Your task to perform on an android device: turn off data saver in the chrome app Image 0: 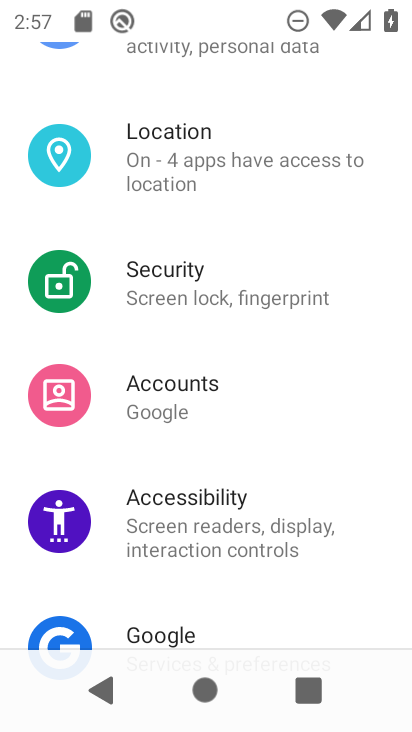
Step 0: press home button
Your task to perform on an android device: turn off data saver in the chrome app Image 1: 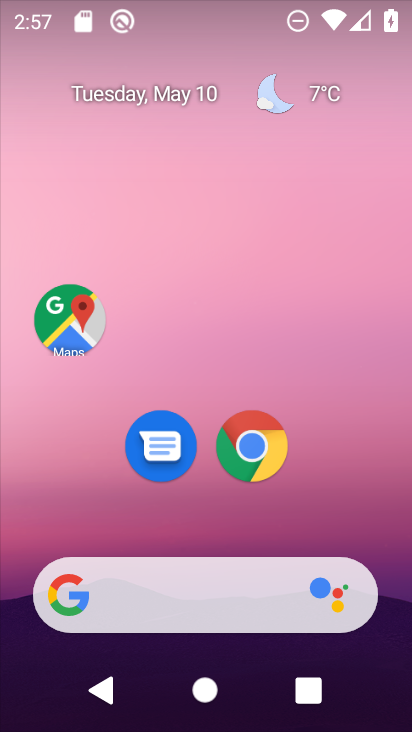
Step 1: click (254, 443)
Your task to perform on an android device: turn off data saver in the chrome app Image 2: 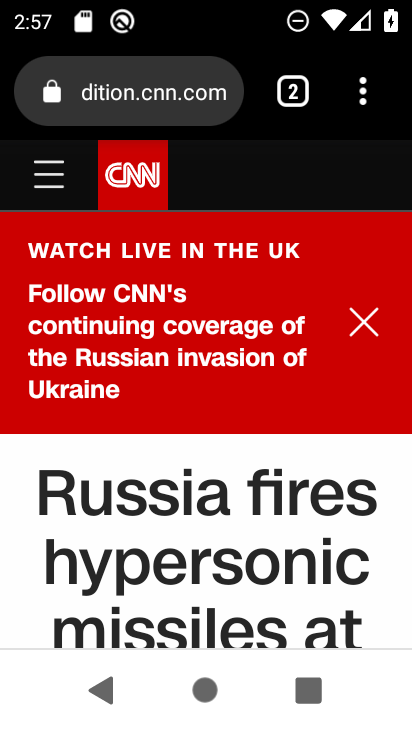
Step 2: click (360, 93)
Your task to perform on an android device: turn off data saver in the chrome app Image 3: 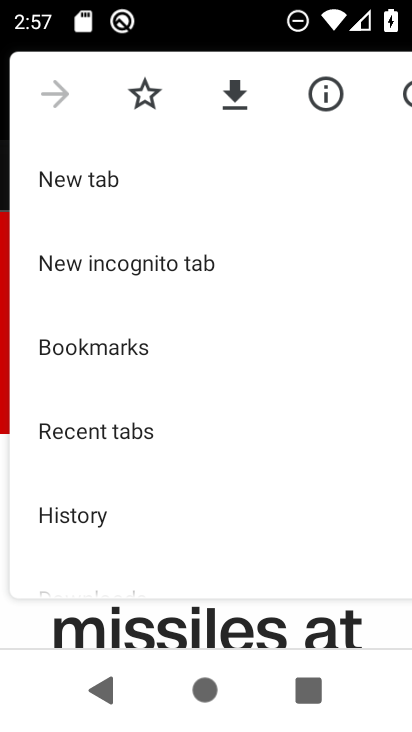
Step 3: drag from (172, 511) to (147, 259)
Your task to perform on an android device: turn off data saver in the chrome app Image 4: 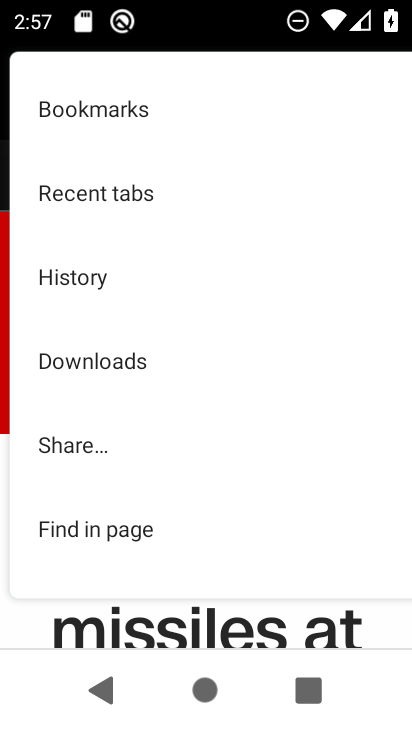
Step 4: drag from (182, 447) to (165, 179)
Your task to perform on an android device: turn off data saver in the chrome app Image 5: 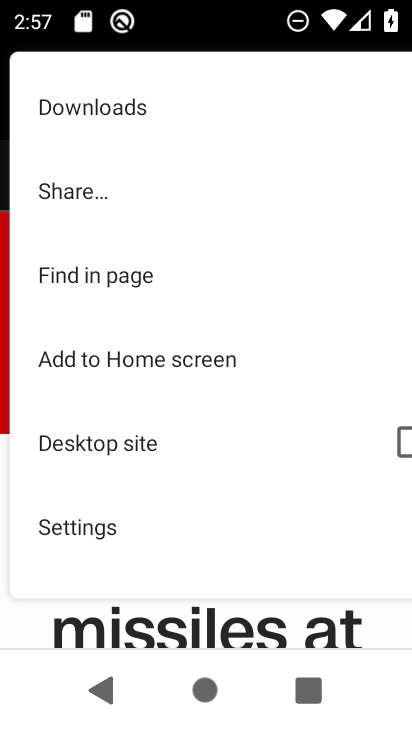
Step 5: click (114, 527)
Your task to perform on an android device: turn off data saver in the chrome app Image 6: 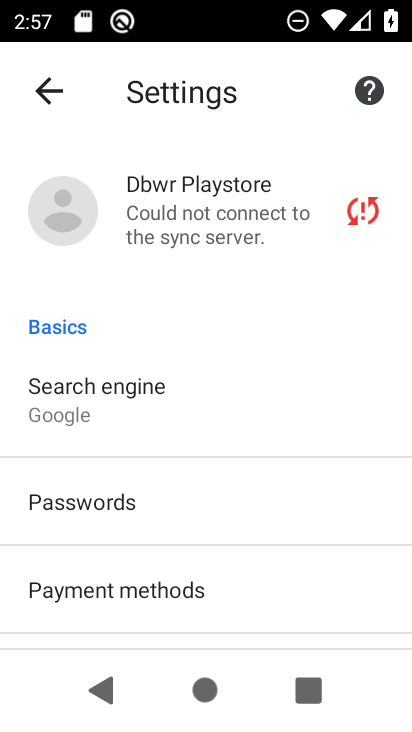
Step 6: drag from (211, 550) to (201, 229)
Your task to perform on an android device: turn off data saver in the chrome app Image 7: 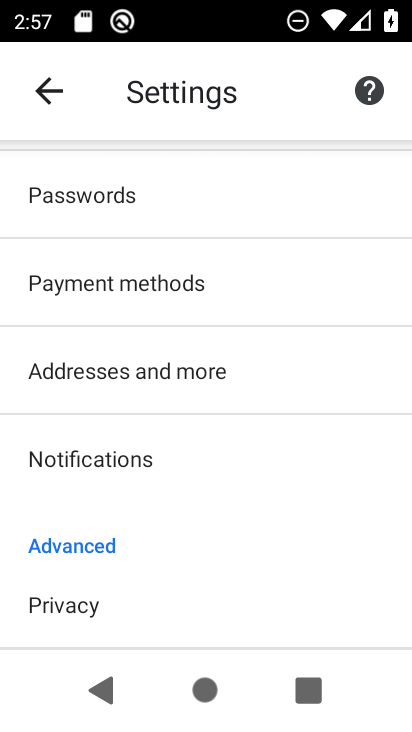
Step 7: drag from (185, 560) to (201, 266)
Your task to perform on an android device: turn off data saver in the chrome app Image 8: 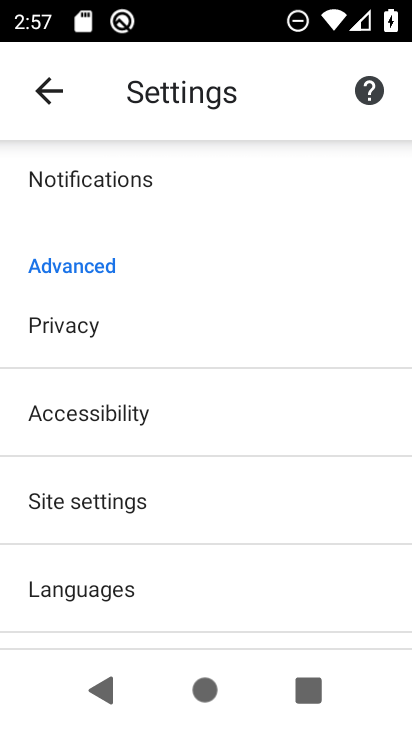
Step 8: drag from (148, 547) to (180, 374)
Your task to perform on an android device: turn off data saver in the chrome app Image 9: 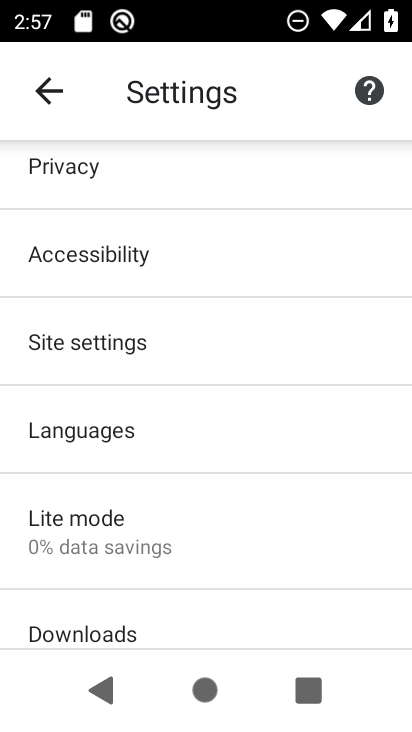
Step 9: click (133, 536)
Your task to perform on an android device: turn off data saver in the chrome app Image 10: 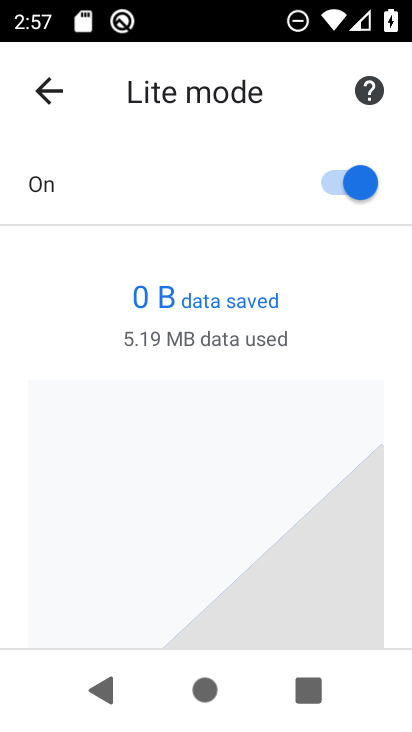
Step 10: click (371, 182)
Your task to perform on an android device: turn off data saver in the chrome app Image 11: 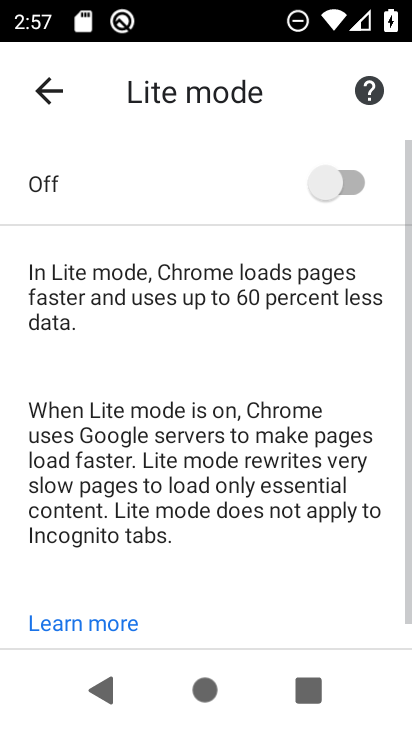
Step 11: task complete